Your task to perform on an android device: Do I have any events today? Image 0: 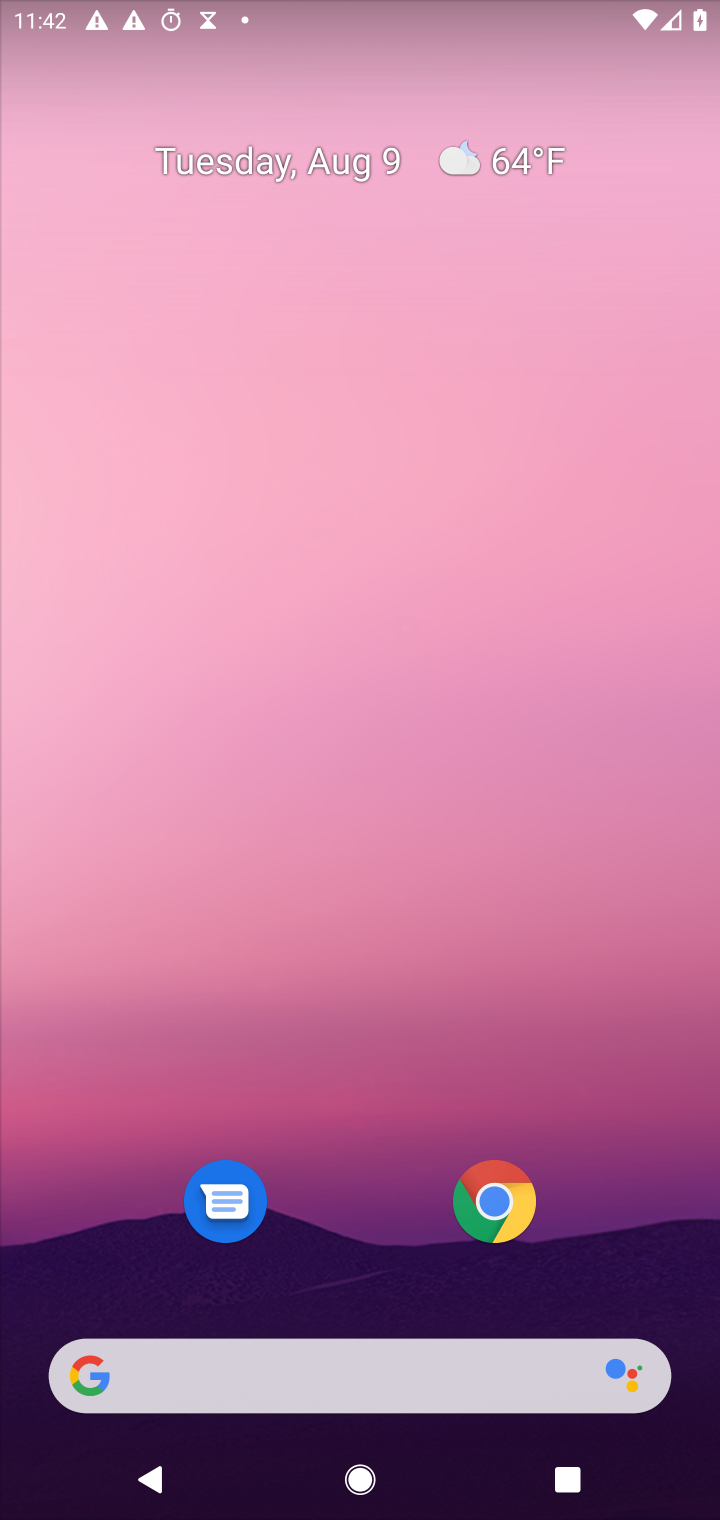
Step 0: press home button
Your task to perform on an android device: Do I have any events today? Image 1: 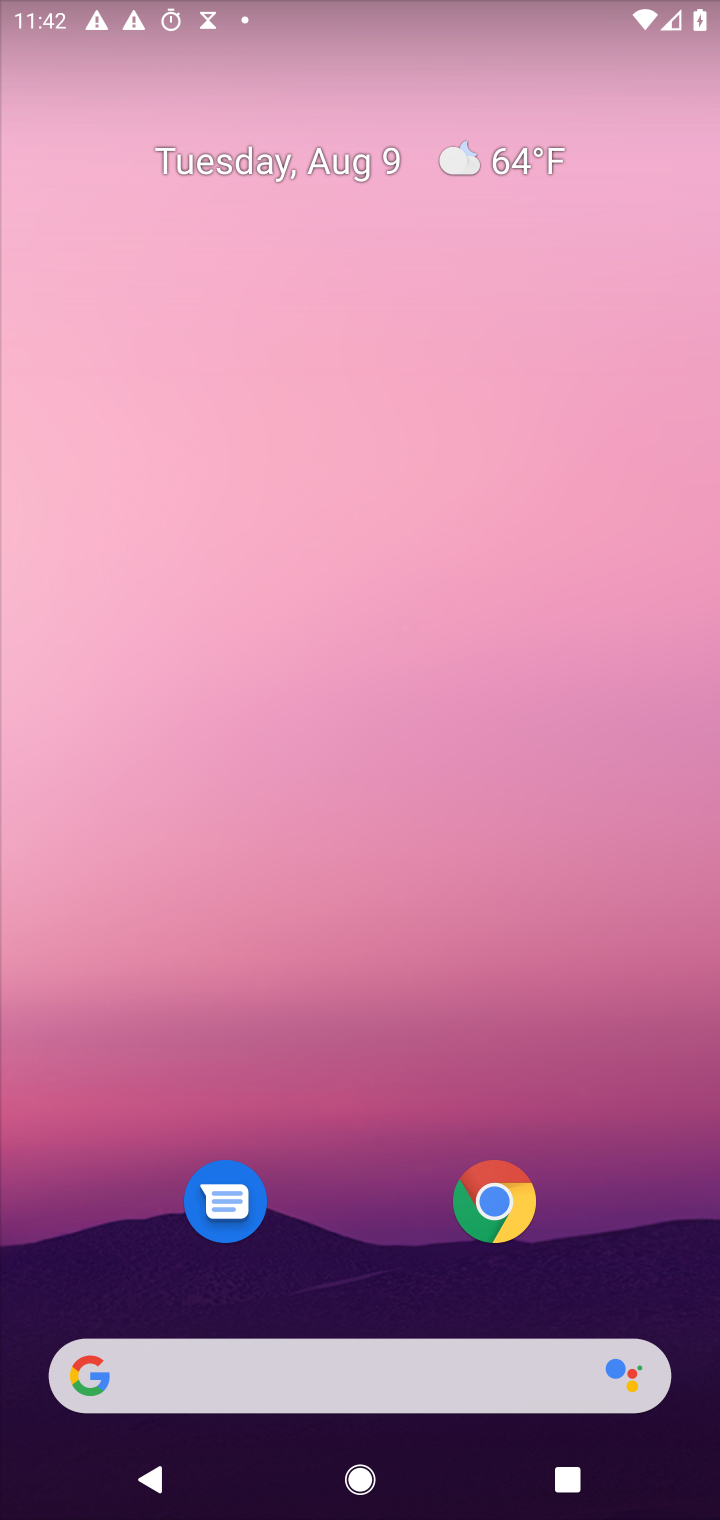
Step 1: drag from (402, 1258) to (594, 18)
Your task to perform on an android device: Do I have any events today? Image 2: 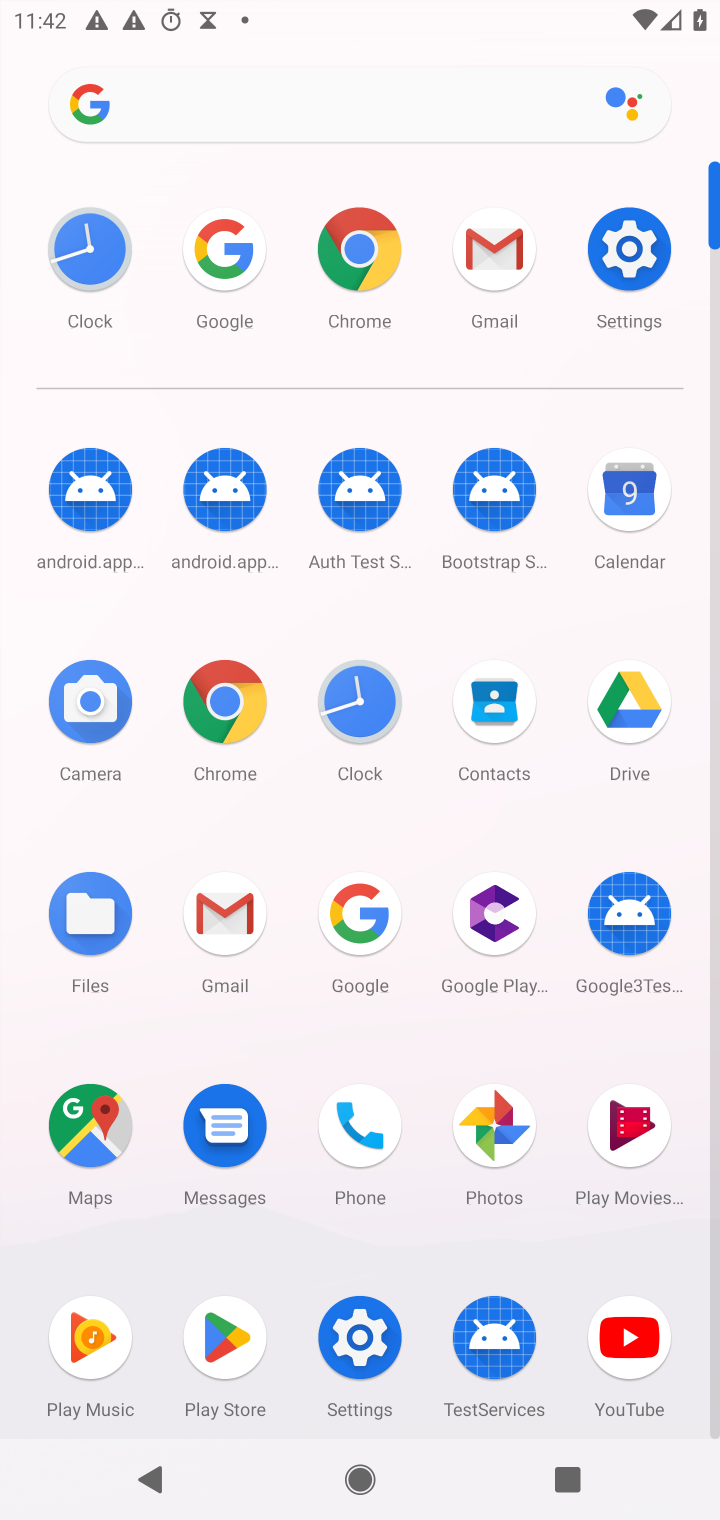
Step 2: click (620, 515)
Your task to perform on an android device: Do I have any events today? Image 3: 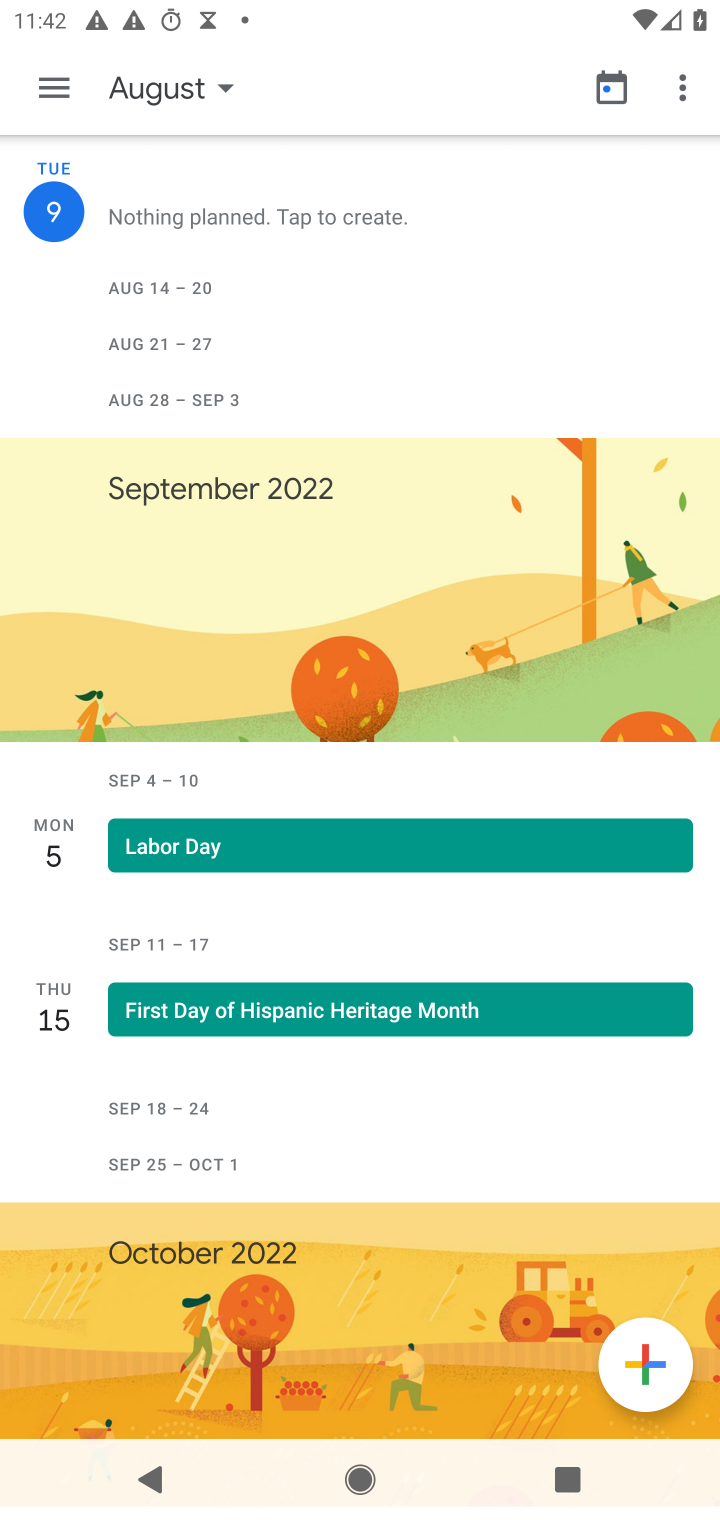
Step 3: click (41, 86)
Your task to perform on an android device: Do I have any events today? Image 4: 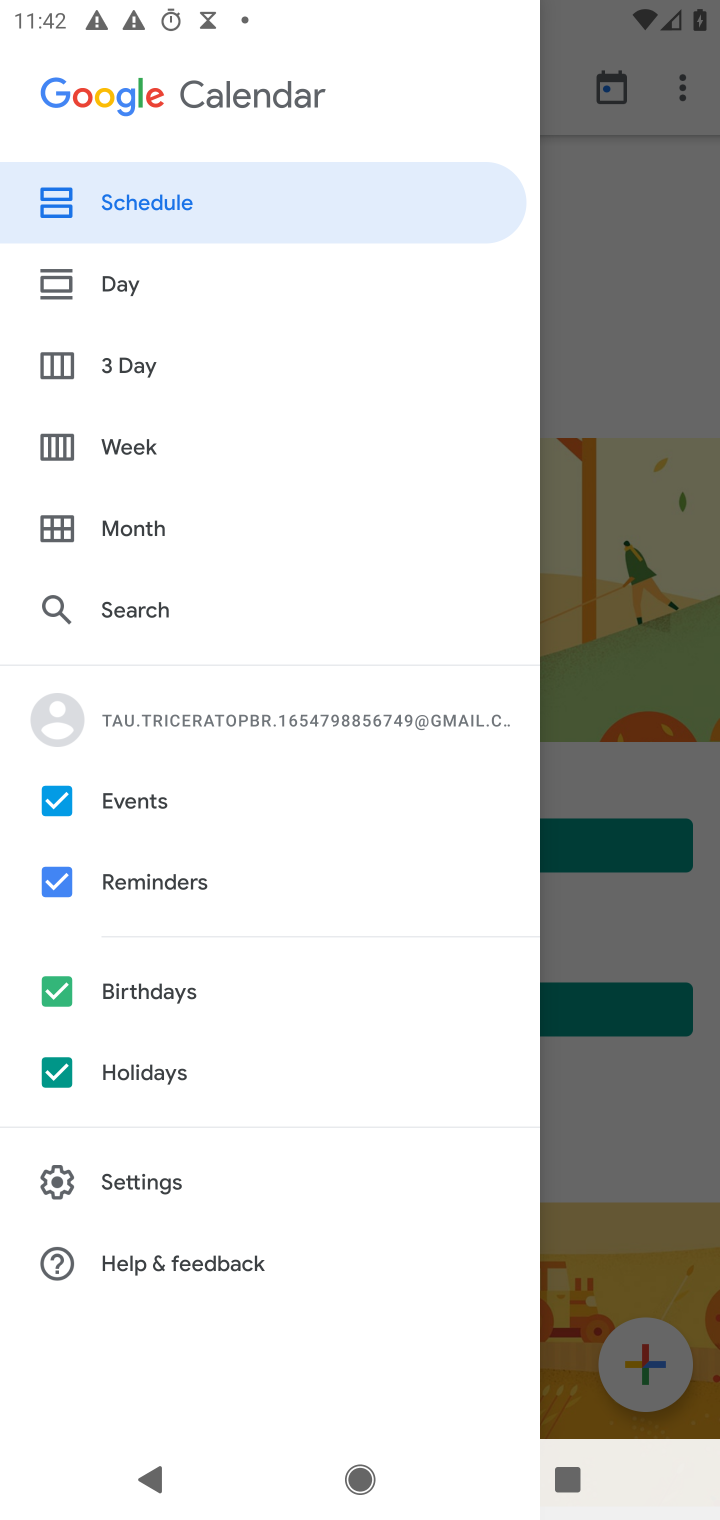
Step 4: click (115, 279)
Your task to perform on an android device: Do I have any events today? Image 5: 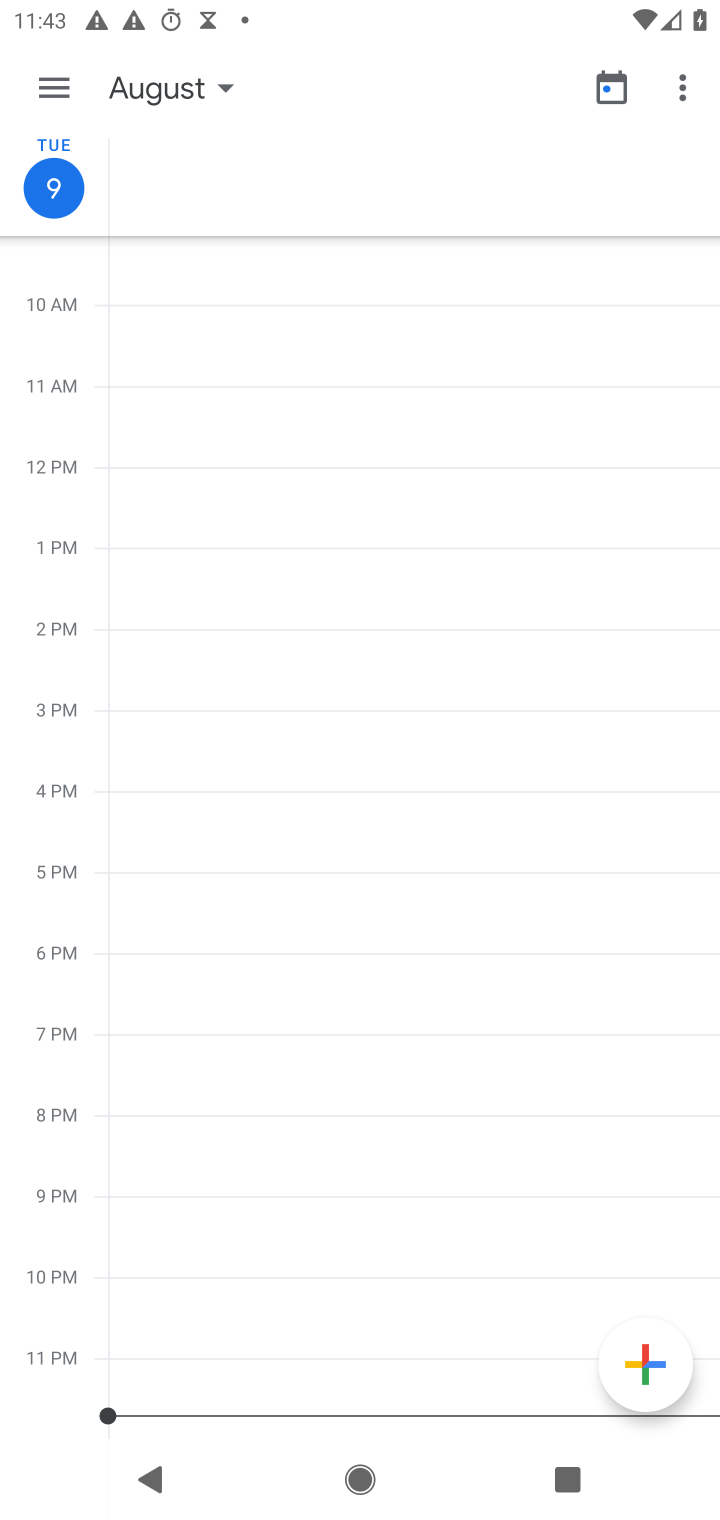
Step 5: task complete